Your task to perform on an android device: open the mobile data screen to see how much data has been used Image 0: 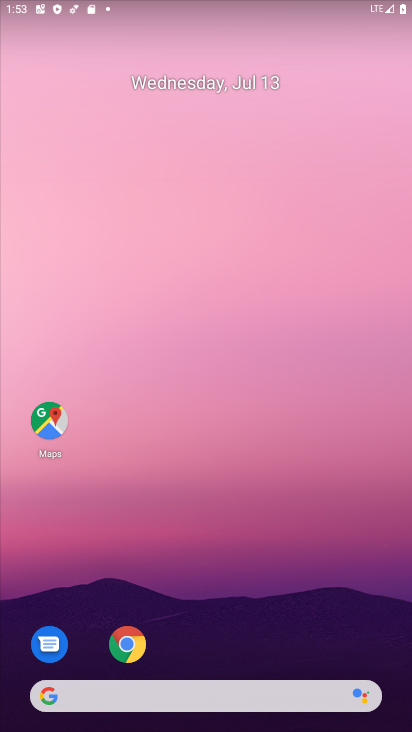
Step 0: drag from (260, 577) to (257, 91)
Your task to perform on an android device: open the mobile data screen to see how much data has been used Image 1: 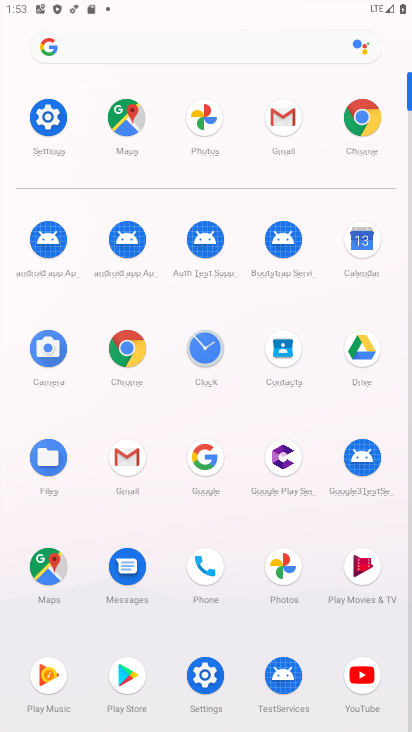
Step 1: click (52, 112)
Your task to perform on an android device: open the mobile data screen to see how much data has been used Image 2: 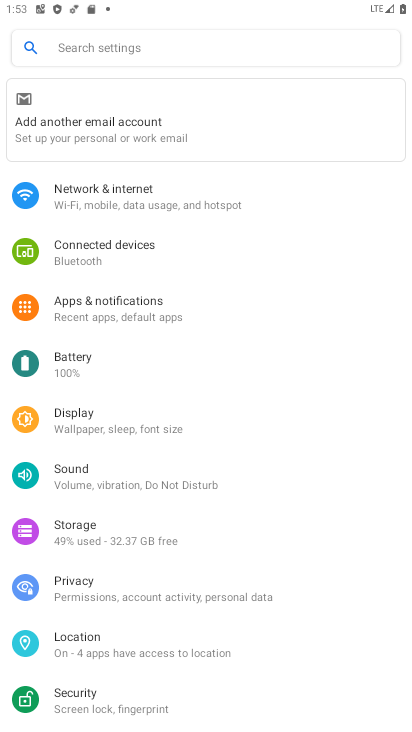
Step 2: click (134, 194)
Your task to perform on an android device: open the mobile data screen to see how much data has been used Image 3: 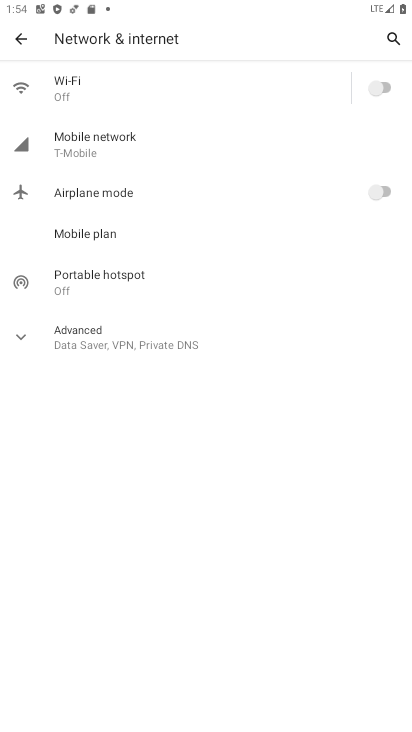
Step 3: click (150, 139)
Your task to perform on an android device: open the mobile data screen to see how much data has been used Image 4: 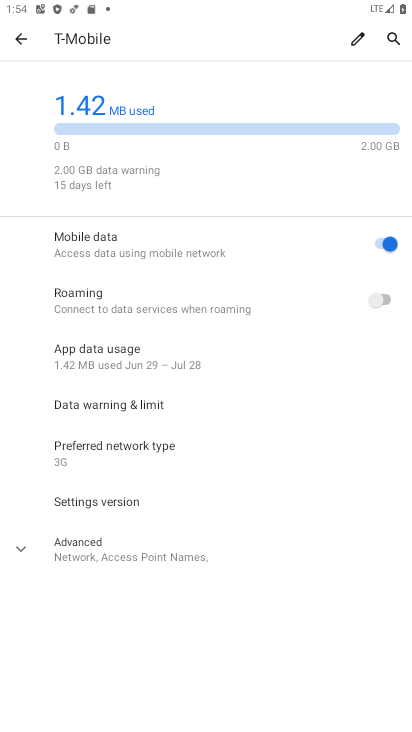
Step 4: task complete